Your task to perform on an android device: Play the last video I watched on Youtube Image 0: 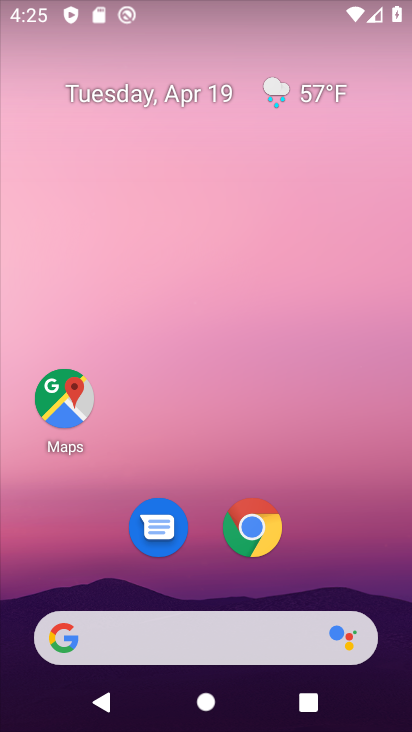
Step 0: drag from (347, 532) to (218, 97)
Your task to perform on an android device: Play the last video I watched on Youtube Image 1: 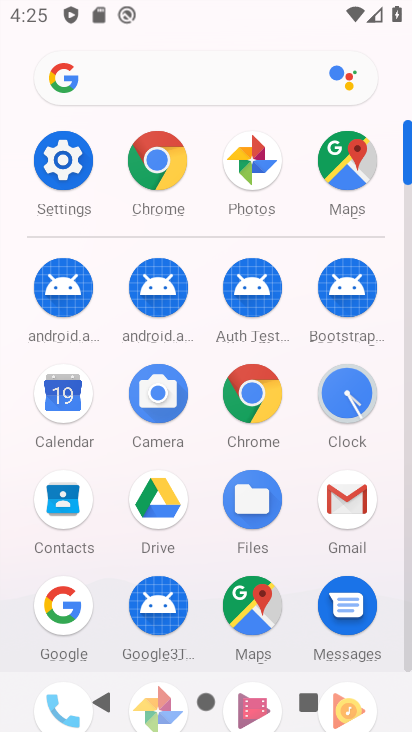
Step 1: click (404, 646)
Your task to perform on an android device: Play the last video I watched on Youtube Image 2: 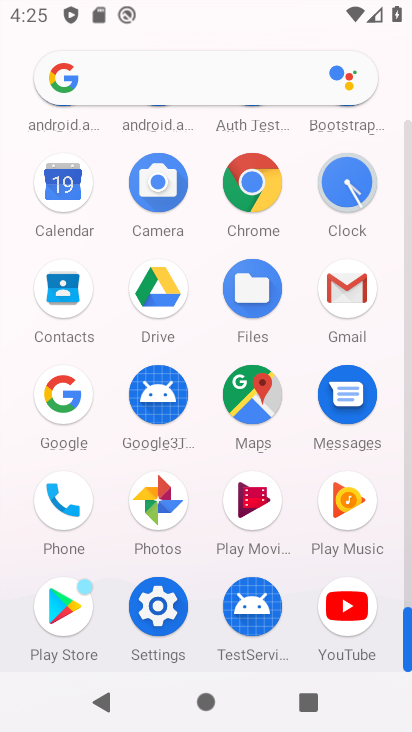
Step 2: click (338, 602)
Your task to perform on an android device: Play the last video I watched on Youtube Image 3: 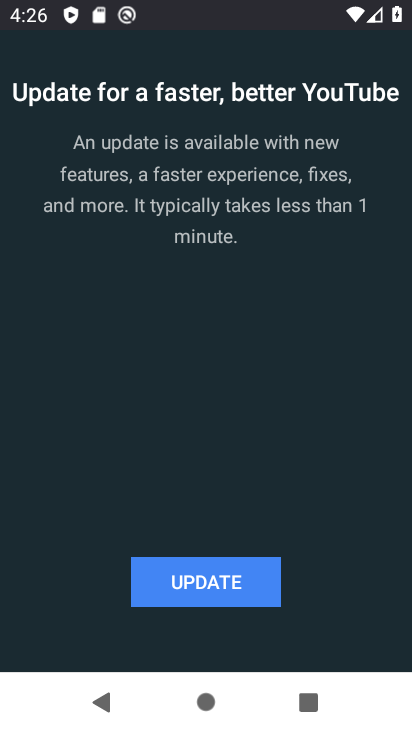
Step 3: click (208, 588)
Your task to perform on an android device: Play the last video I watched on Youtube Image 4: 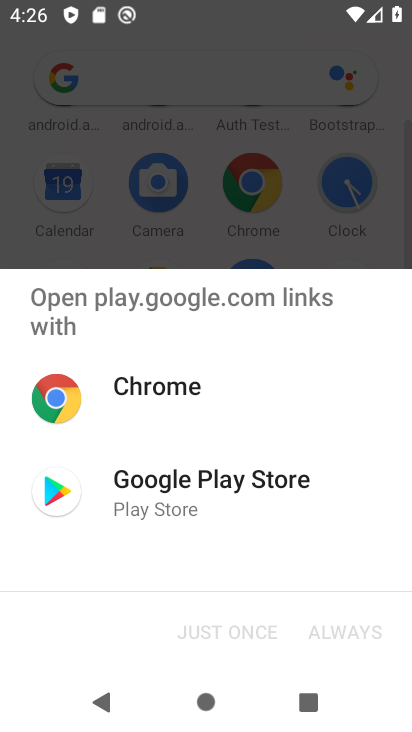
Step 4: click (149, 491)
Your task to perform on an android device: Play the last video I watched on Youtube Image 5: 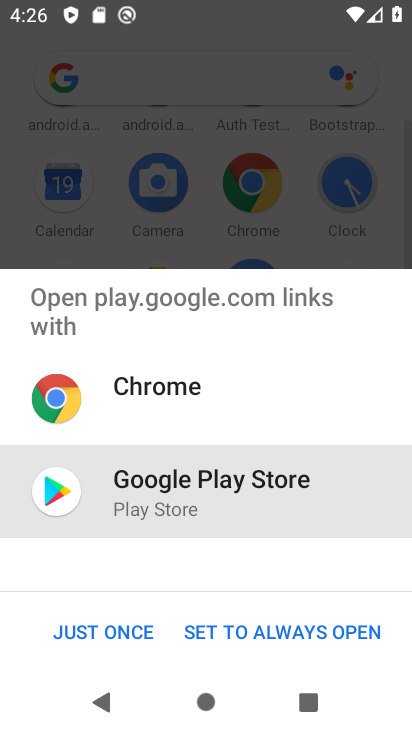
Step 5: click (118, 635)
Your task to perform on an android device: Play the last video I watched on Youtube Image 6: 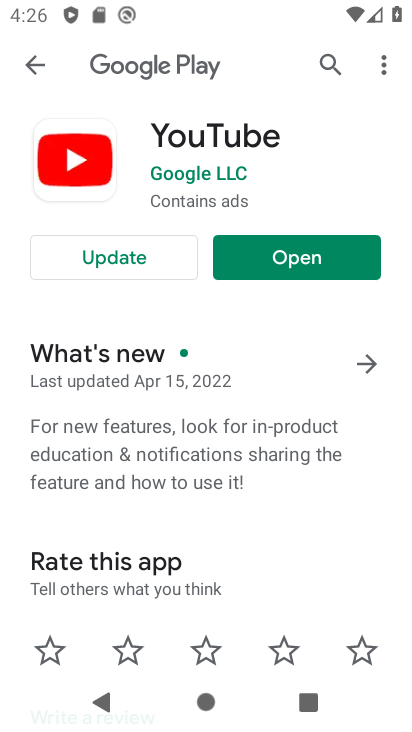
Step 6: click (120, 248)
Your task to perform on an android device: Play the last video I watched on Youtube Image 7: 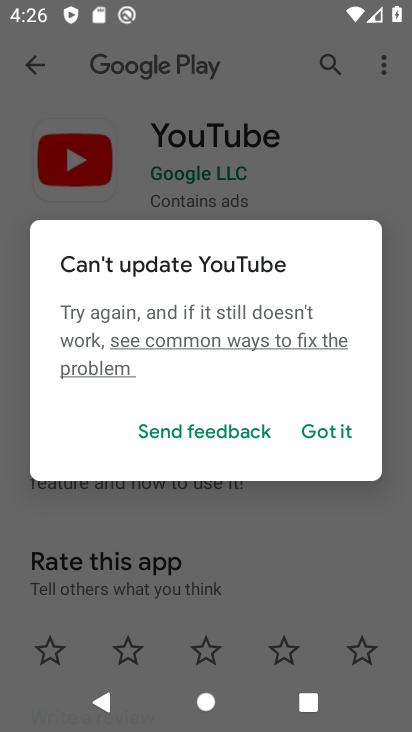
Step 7: click (327, 422)
Your task to perform on an android device: Play the last video I watched on Youtube Image 8: 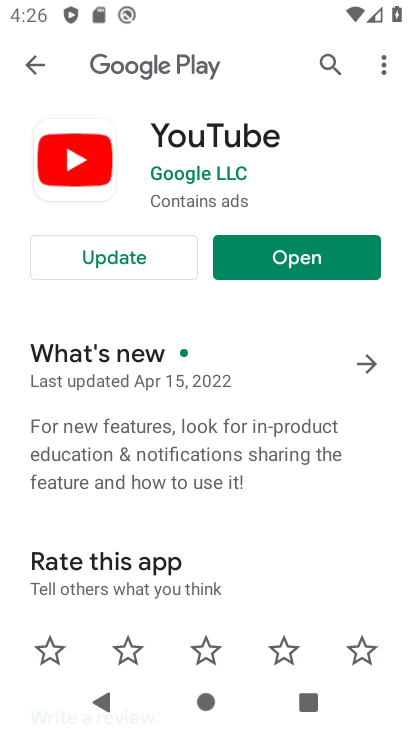
Step 8: click (274, 262)
Your task to perform on an android device: Play the last video I watched on Youtube Image 9: 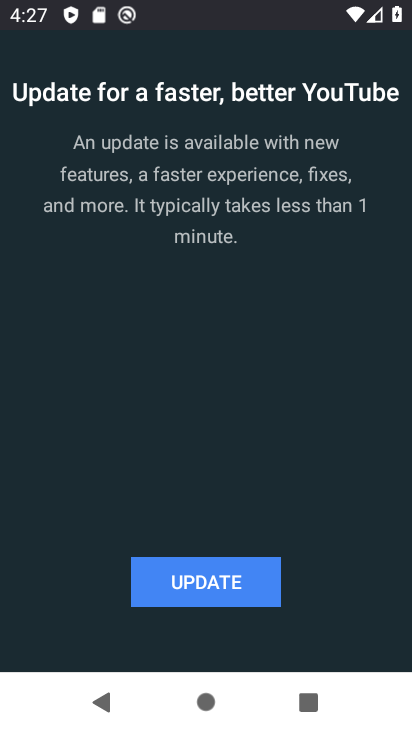
Step 9: task complete